Your task to perform on an android device: turn off improve location accuracy Image 0: 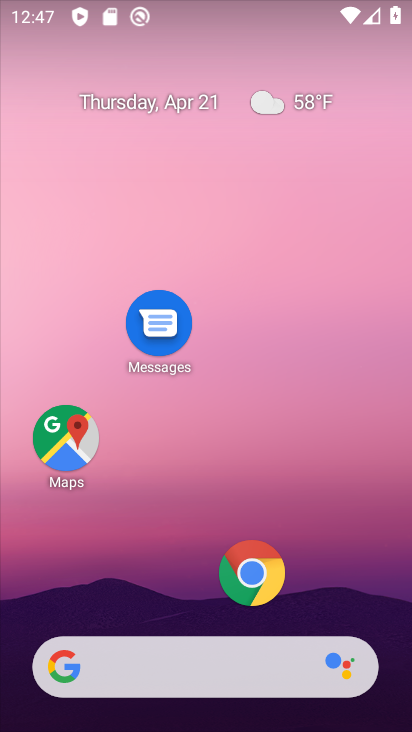
Step 0: drag from (172, 596) to (221, 199)
Your task to perform on an android device: turn off improve location accuracy Image 1: 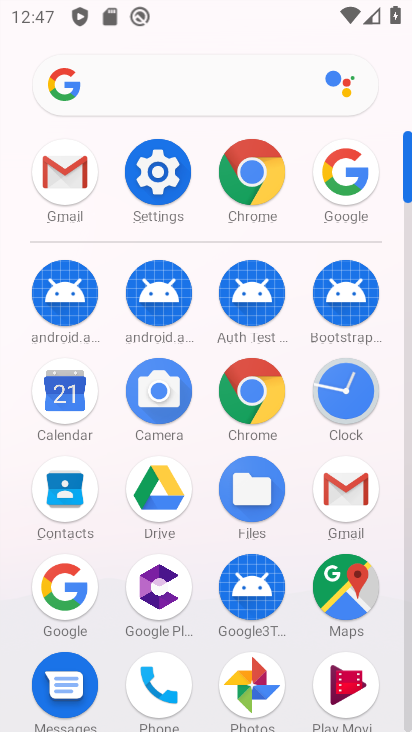
Step 1: click (150, 176)
Your task to perform on an android device: turn off improve location accuracy Image 2: 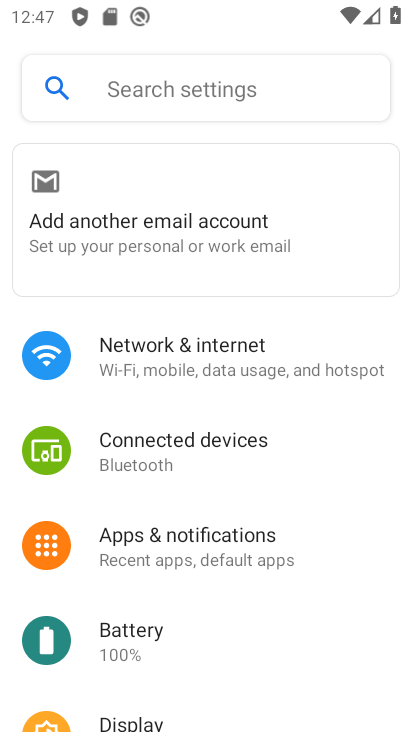
Step 2: drag from (256, 603) to (249, 220)
Your task to perform on an android device: turn off improve location accuracy Image 3: 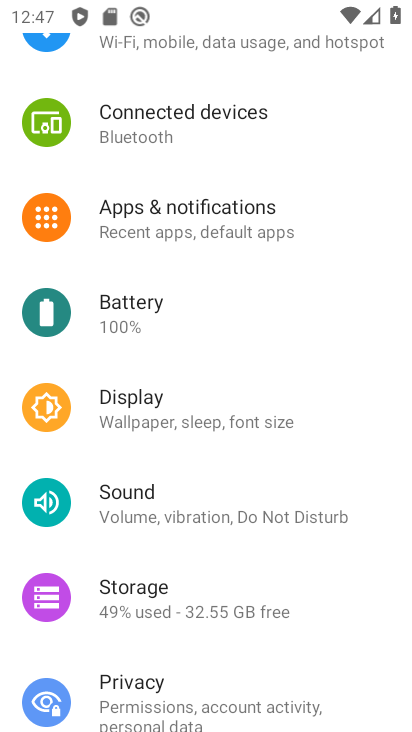
Step 3: drag from (256, 542) to (305, 73)
Your task to perform on an android device: turn off improve location accuracy Image 4: 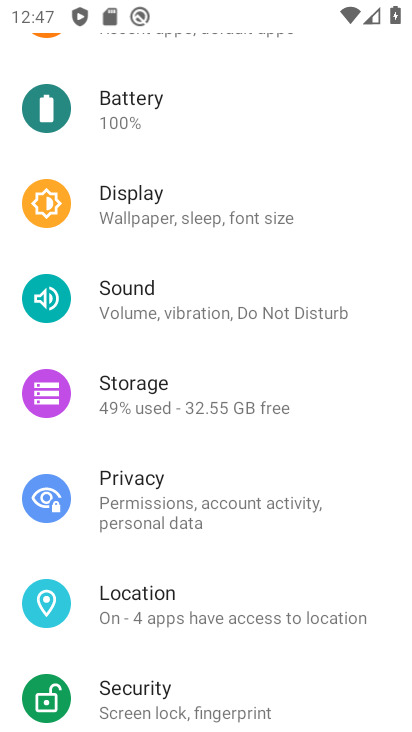
Step 4: click (164, 599)
Your task to perform on an android device: turn off improve location accuracy Image 5: 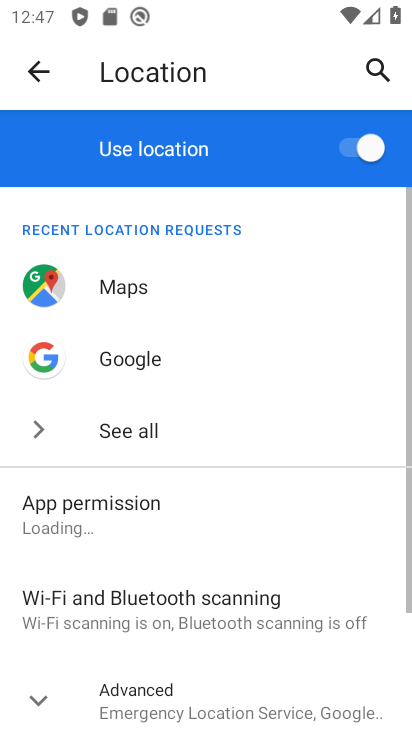
Step 5: drag from (194, 520) to (248, 168)
Your task to perform on an android device: turn off improve location accuracy Image 6: 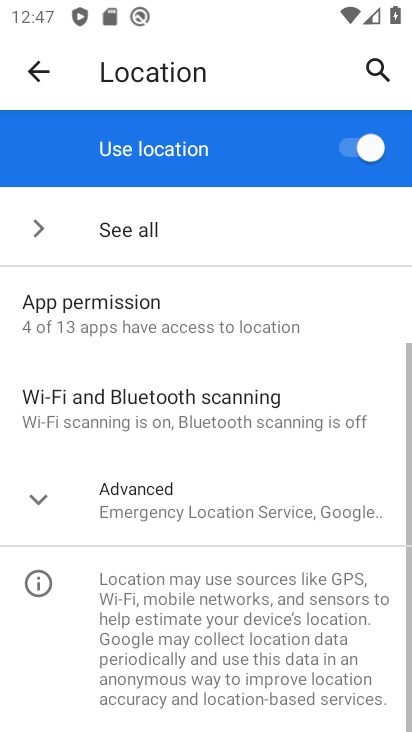
Step 6: click (136, 498)
Your task to perform on an android device: turn off improve location accuracy Image 7: 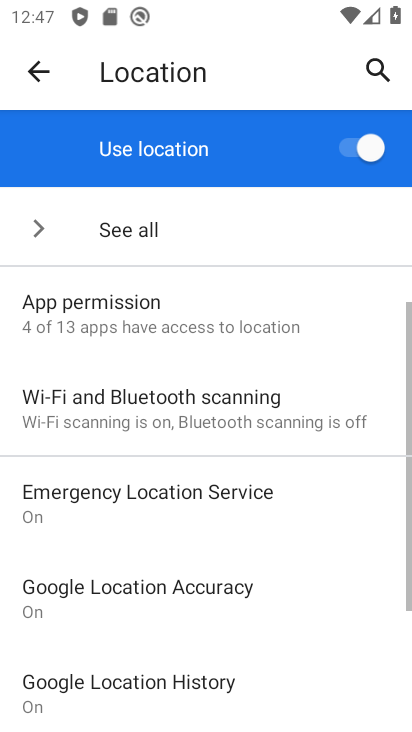
Step 7: drag from (169, 631) to (192, 441)
Your task to perform on an android device: turn off improve location accuracy Image 8: 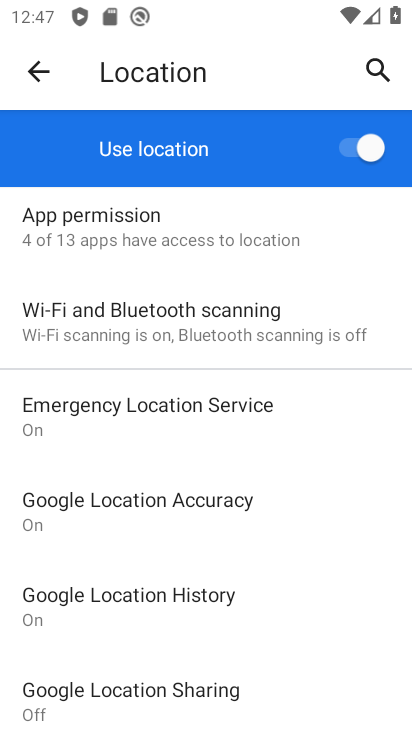
Step 8: click (127, 499)
Your task to perform on an android device: turn off improve location accuracy Image 9: 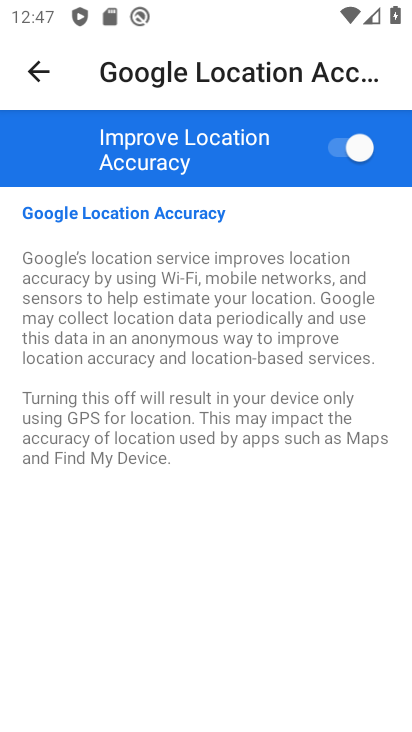
Step 9: click (357, 142)
Your task to perform on an android device: turn off improve location accuracy Image 10: 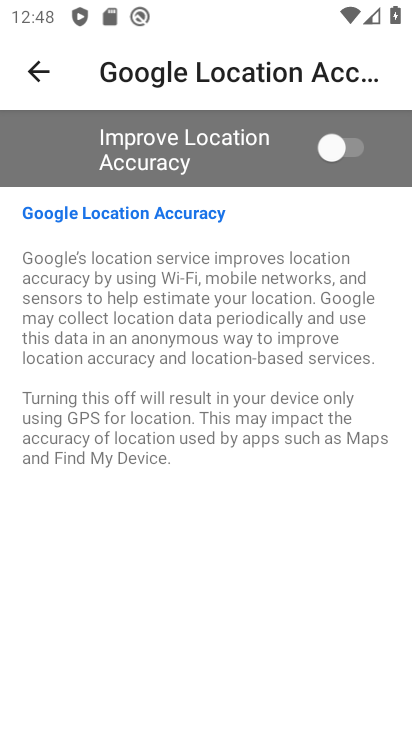
Step 10: task complete